Your task to perform on an android device: Add "logitech g910" to the cart on ebay, then select checkout. Image 0: 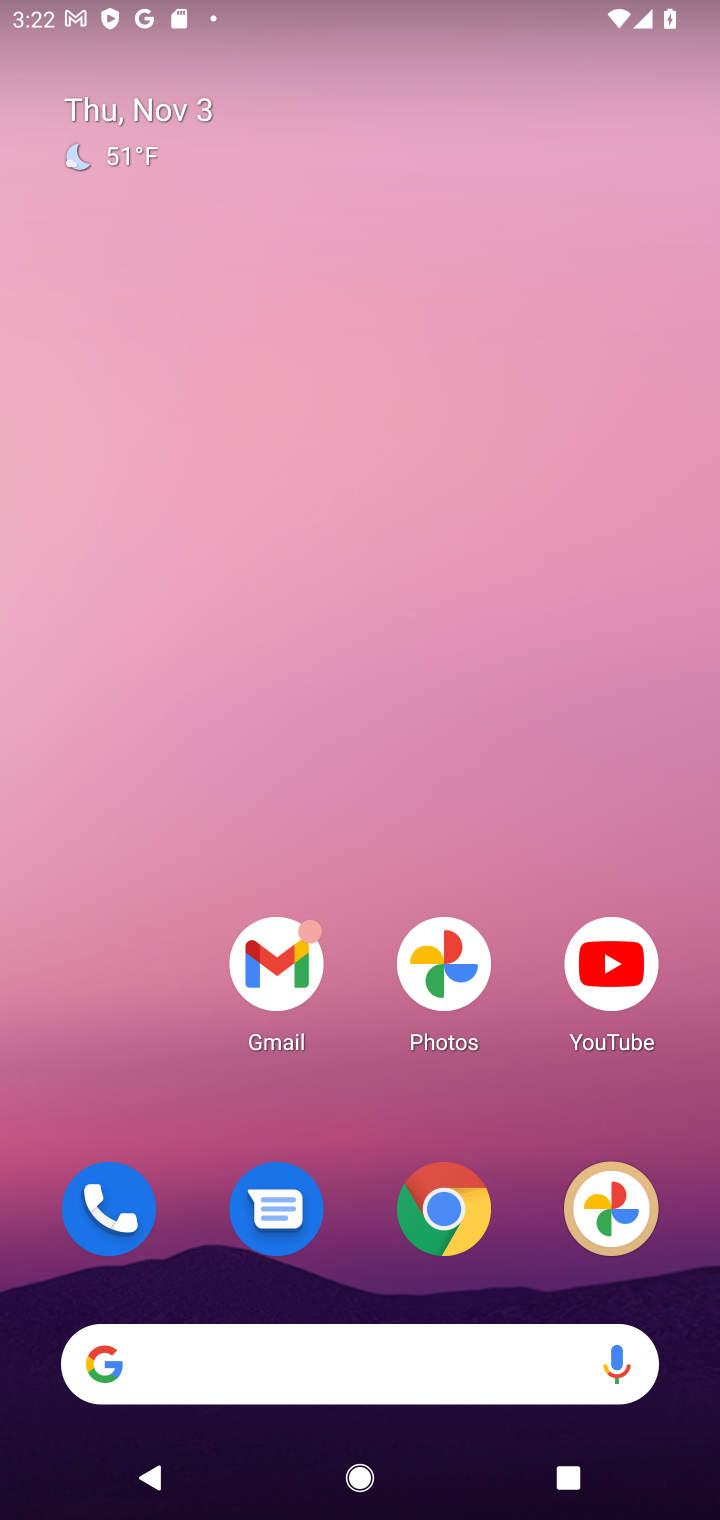
Step 0: click (469, 1209)
Your task to perform on an android device: Add "logitech g910" to the cart on ebay, then select checkout. Image 1: 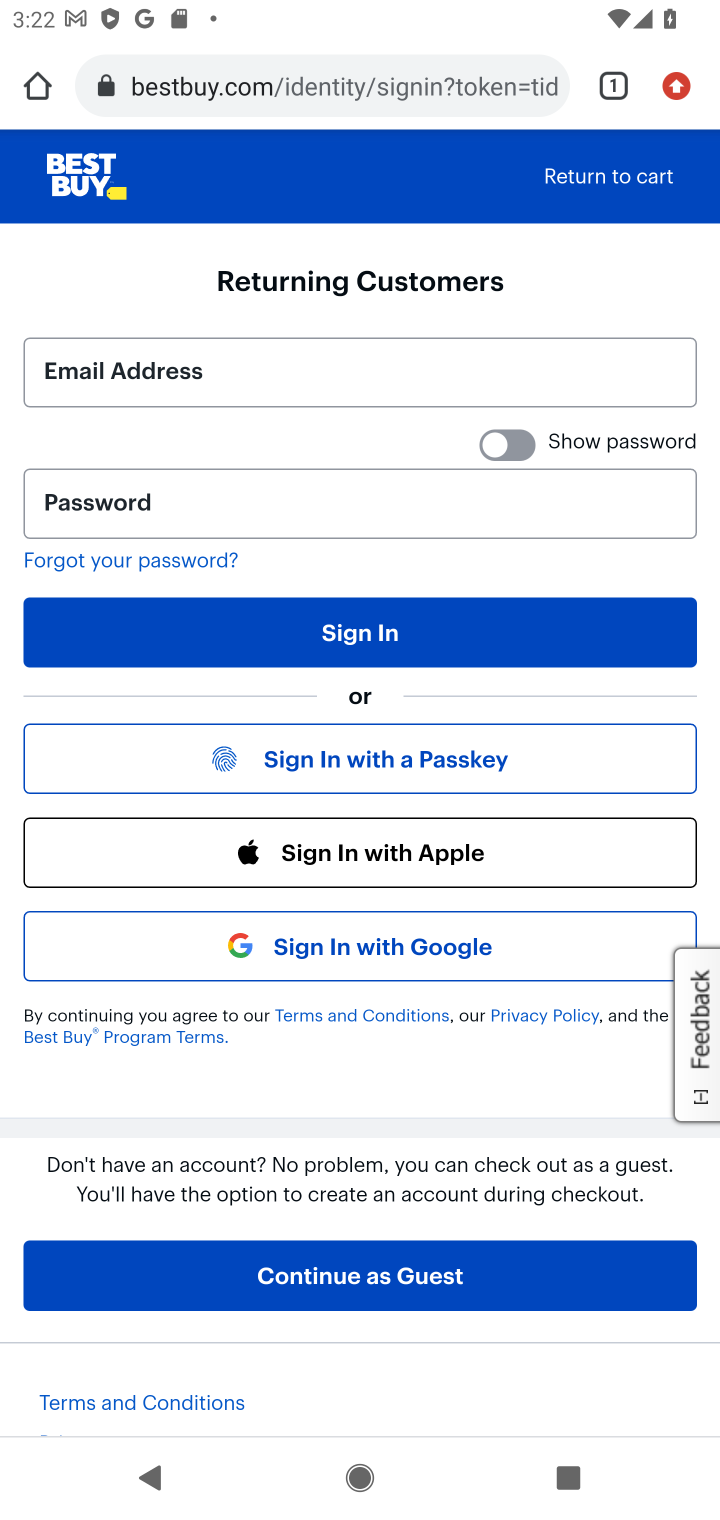
Step 1: click (331, 97)
Your task to perform on an android device: Add "logitech g910" to the cart on ebay, then select checkout. Image 2: 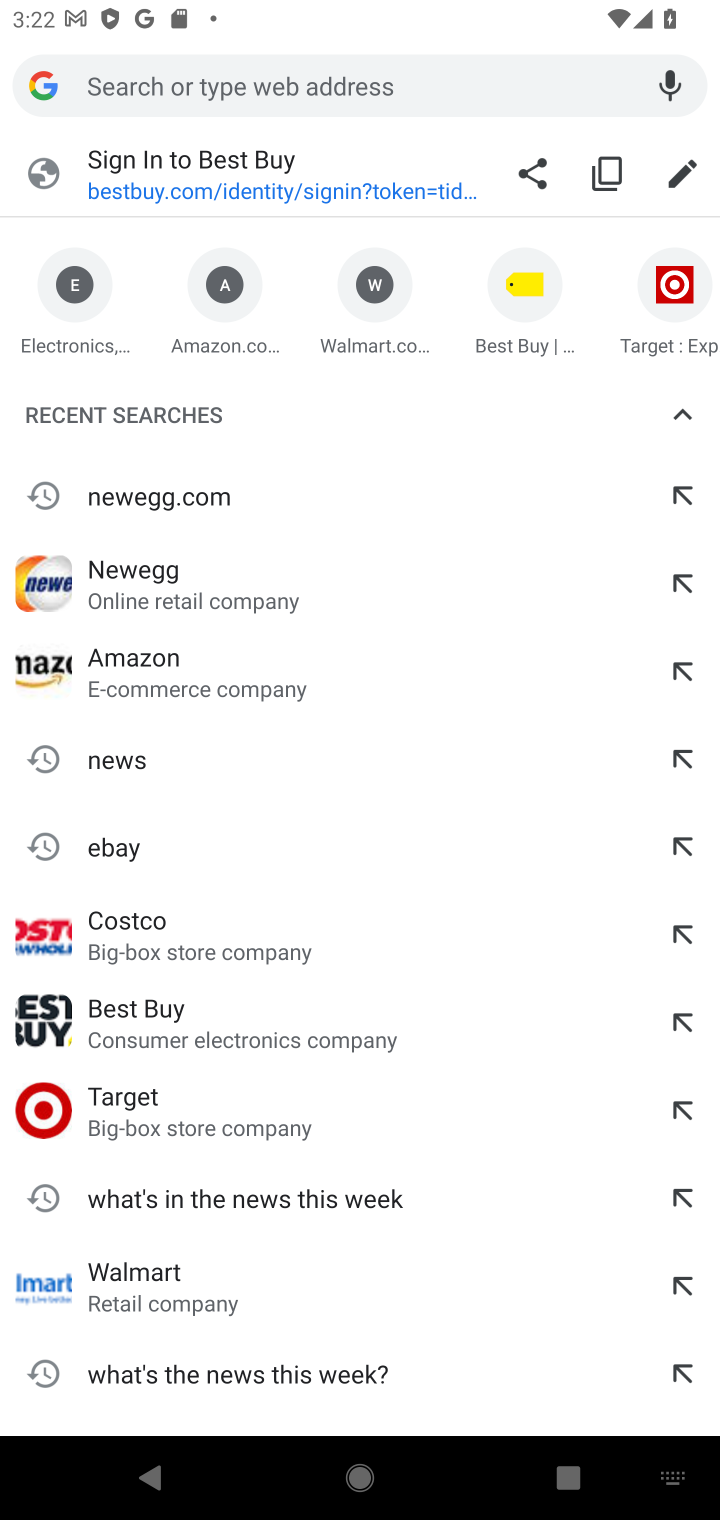
Step 2: type "ebay"
Your task to perform on an android device: Add "logitech g910" to the cart on ebay, then select checkout. Image 3: 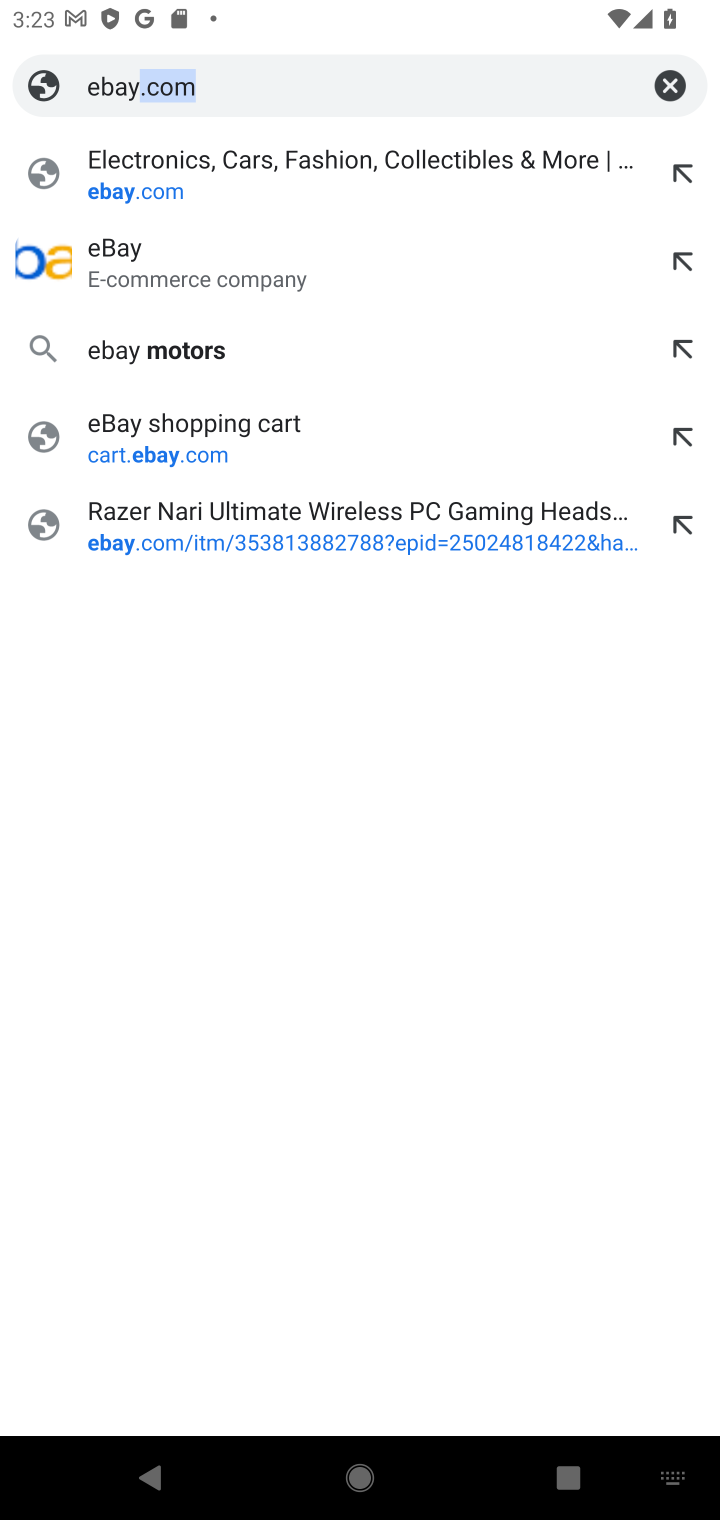
Step 3: click (292, 160)
Your task to perform on an android device: Add "logitech g910" to the cart on ebay, then select checkout. Image 4: 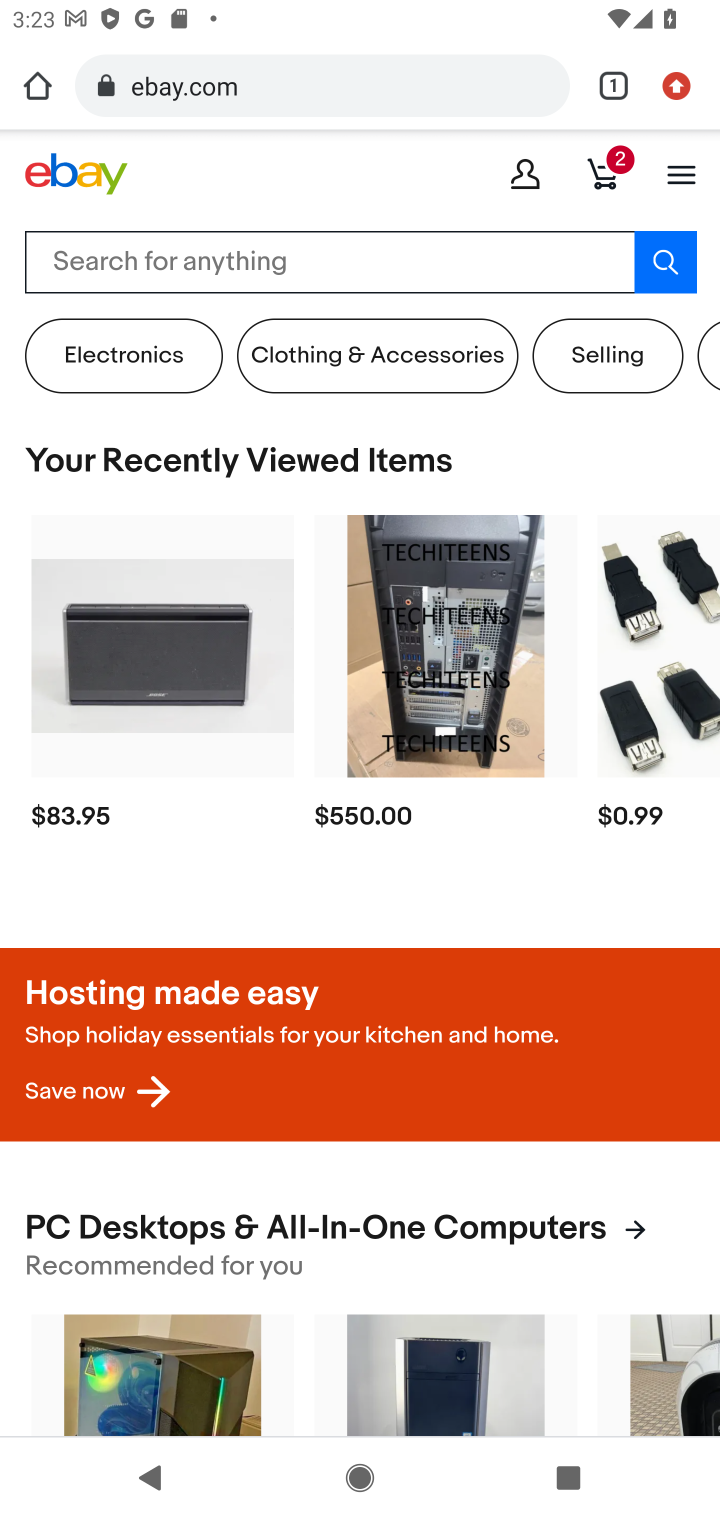
Step 4: click (309, 274)
Your task to perform on an android device: Add "logitech g910" to the cart on ebay, then select checkout. Image 5: 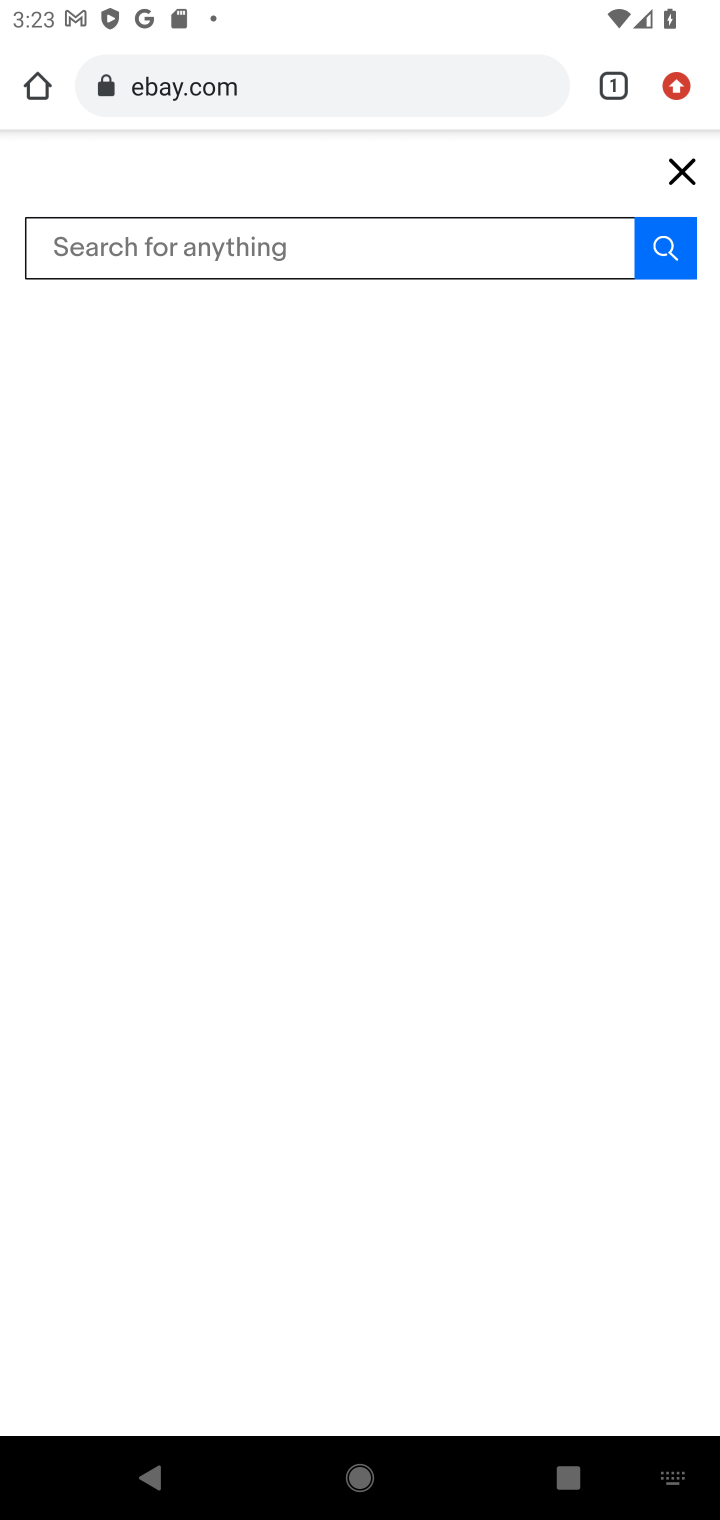
Step 5: type "logitech g910"
Your task to perform on an android device: Add "logitech g910" to the cart on ebay, then select checkout. Image 6: 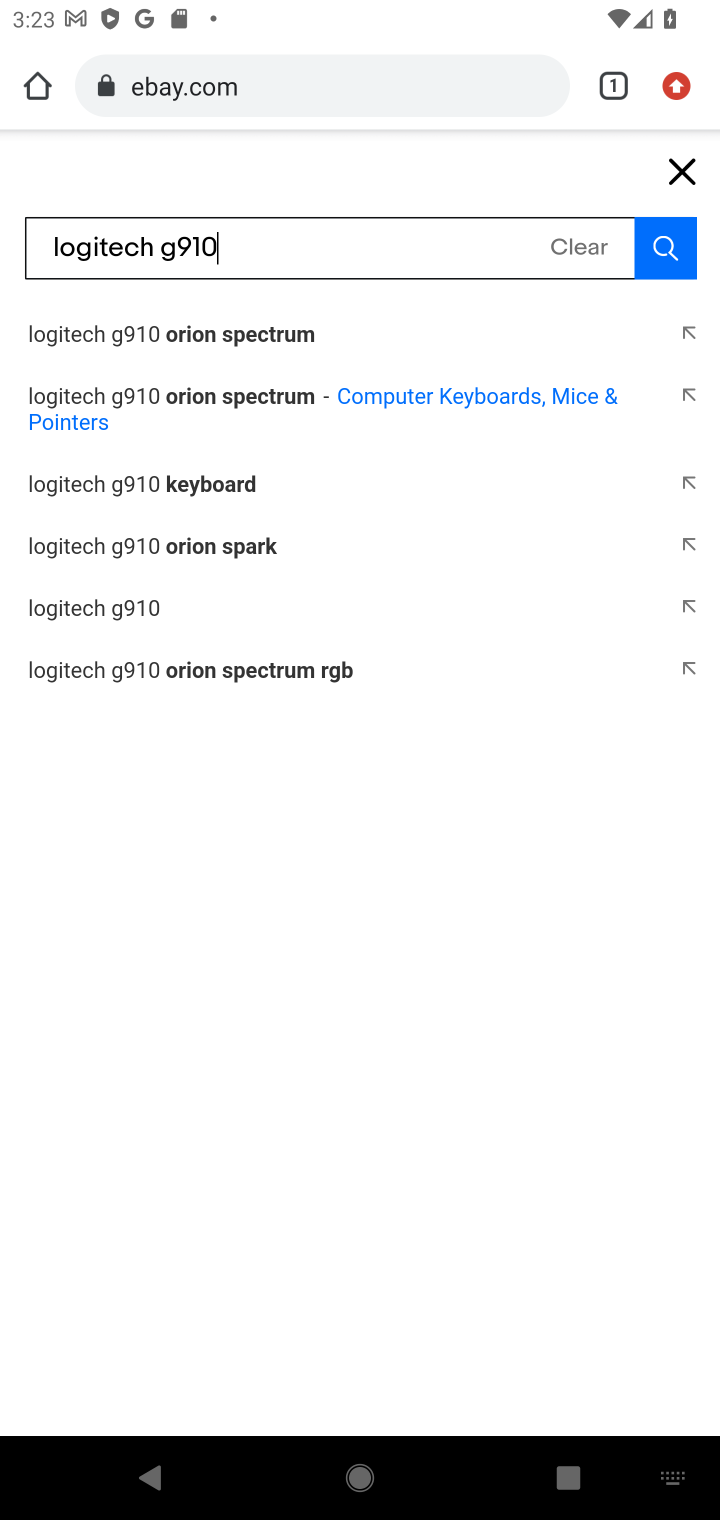
Step 6: press enter
Your task to perform on an android device: Add "logitech g910" to the cart on ebay, then select checkout. Image 7: 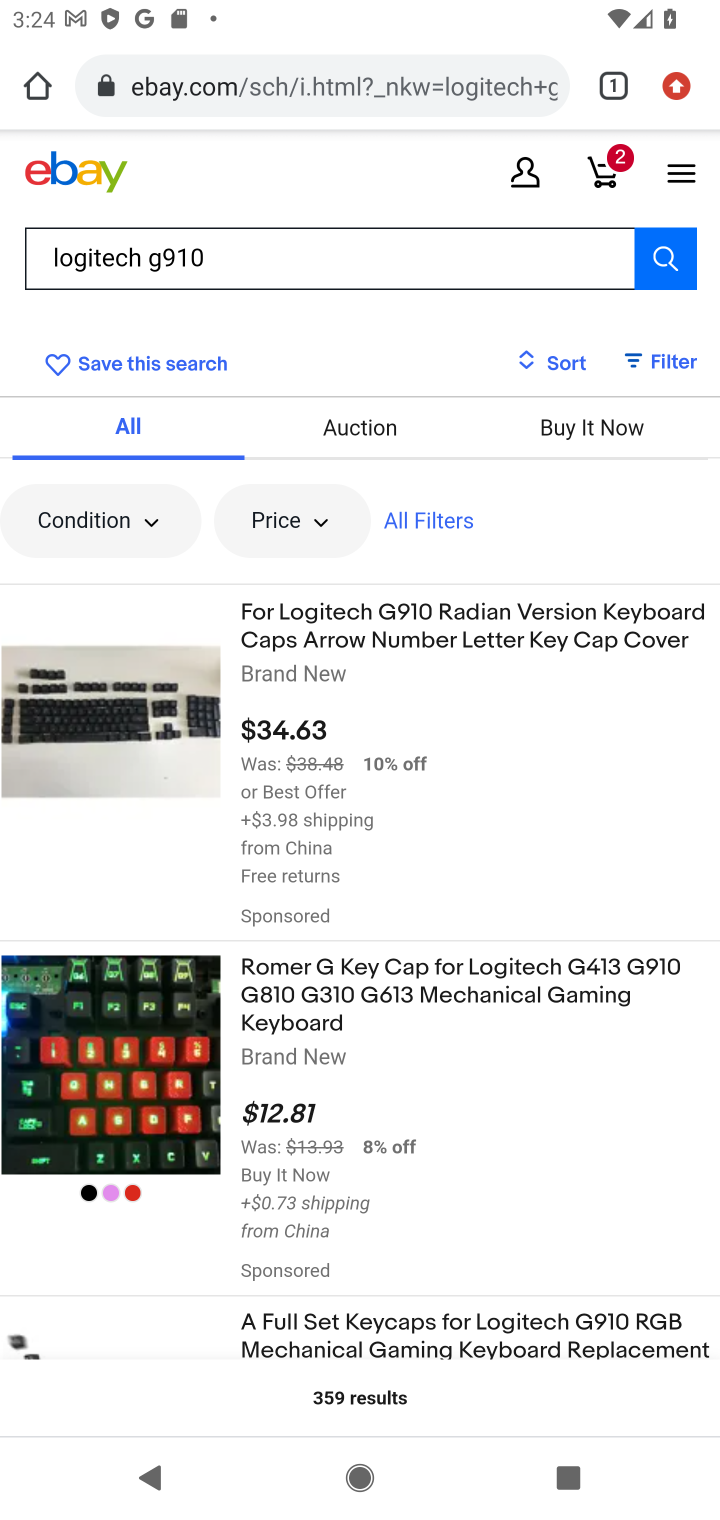
Step 7: click (71, 731)
Your task to perform on an android device: Add "logitech g910" to the cart on ebay, then select checkout. Image 8: 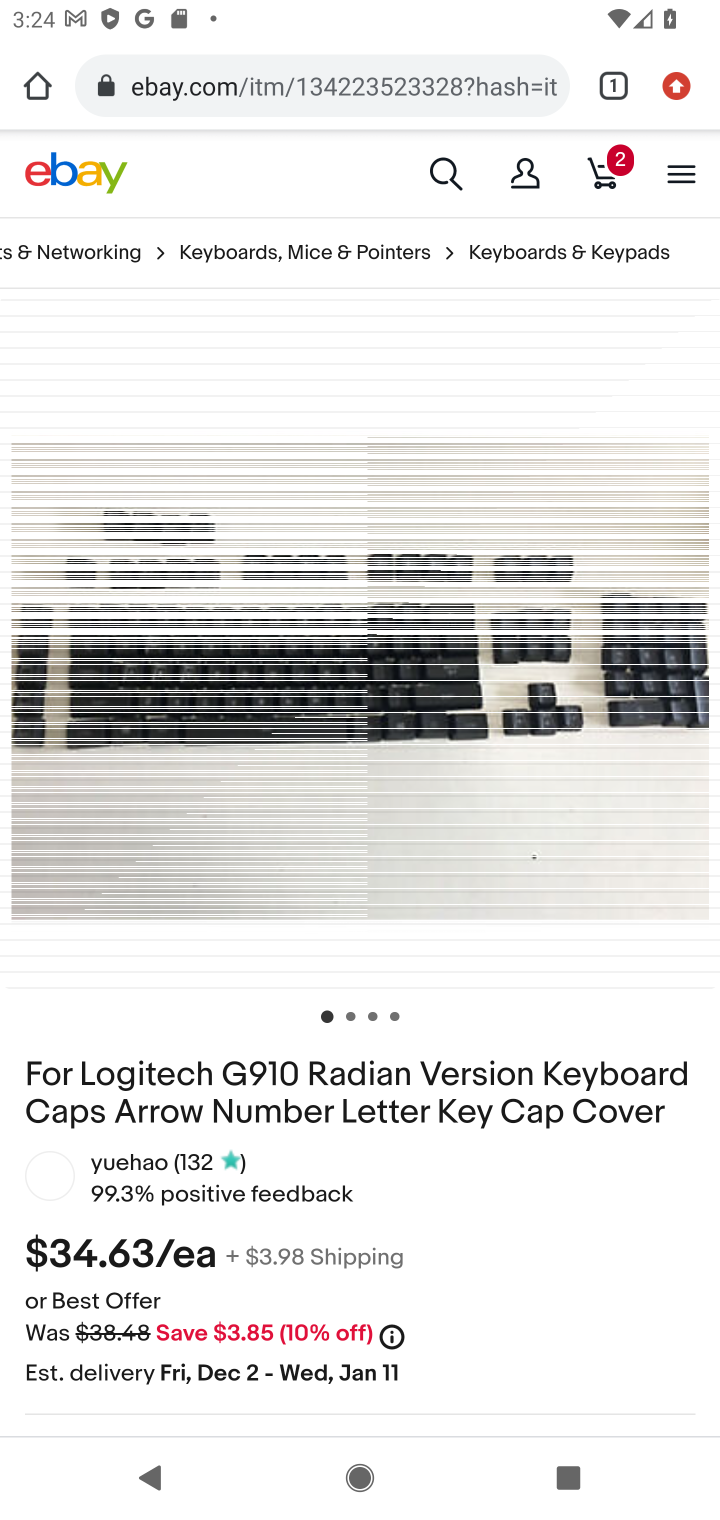
Step 8: click (441, 175)
Your task to perform on an android device: Add "logitech g910" to the cart on ebay, then select checkout. Image 9: 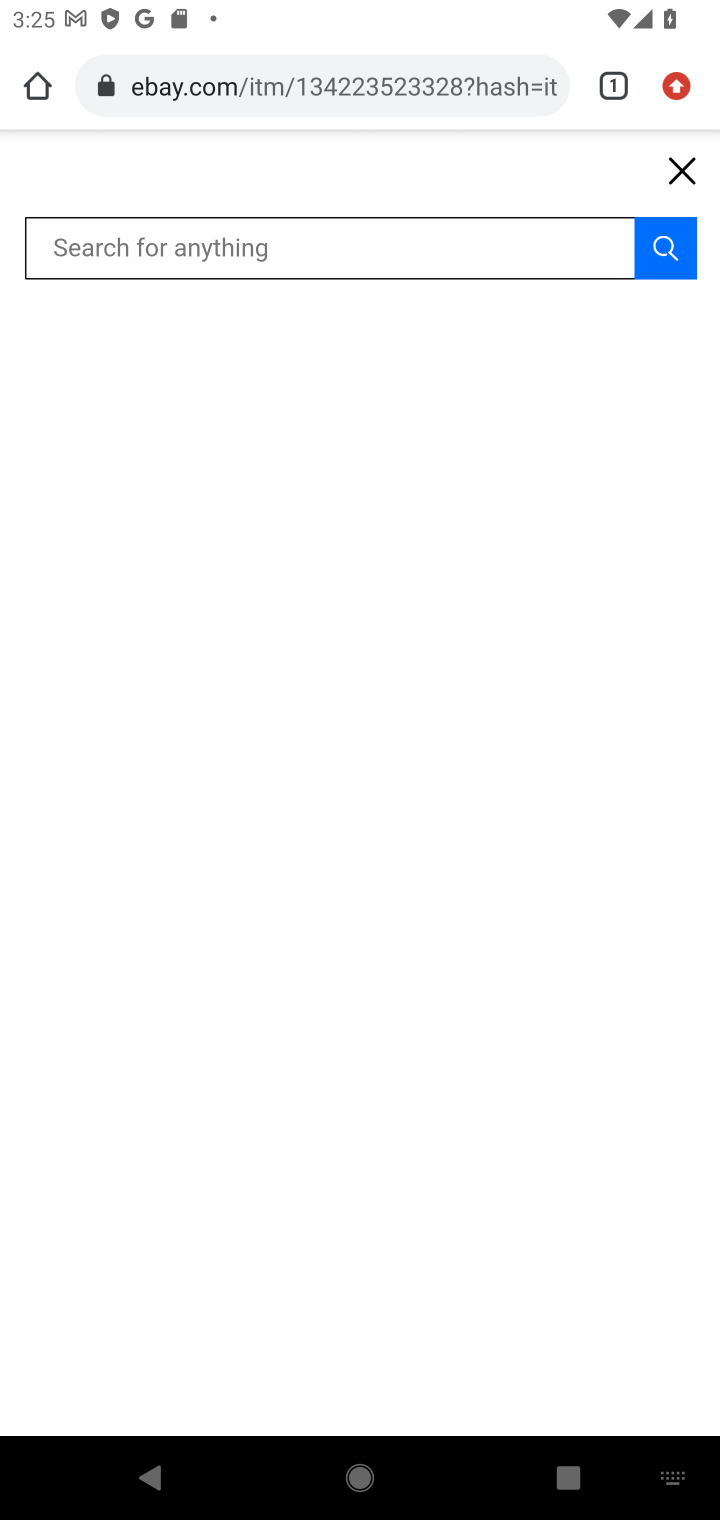
Step 9: type "logitech g910"
Your task to perform on an android device: Add "logitech g910" to the cart on ebay, then select checkout. Image 10: 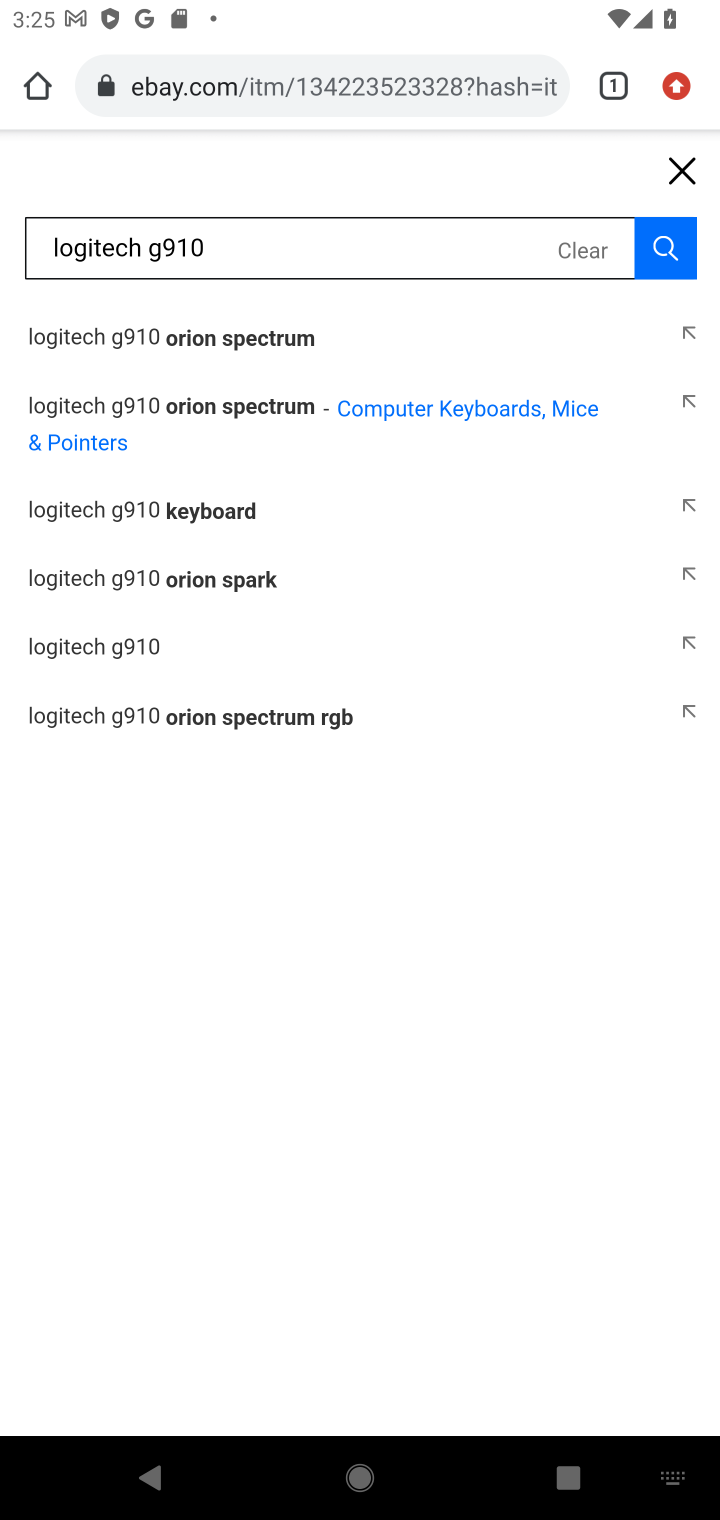
Step 10: press enter
Your task to perform on an android device: Add "logitech g910" to the cart on ebay, then select checkout. Image 11: 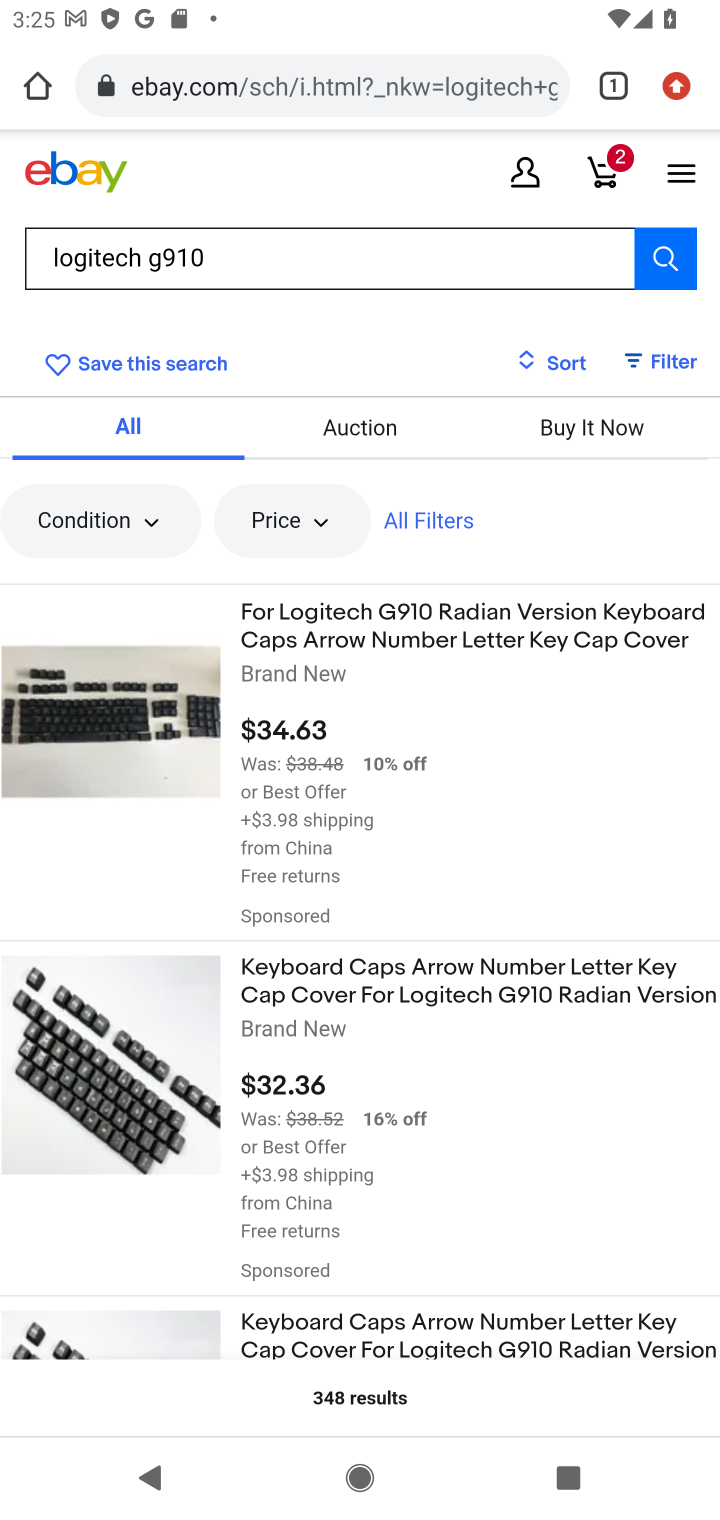
Step 11: click (166, 719)
Your task to perform on an android device: Add "logitech g910" to the cart on ebay, then select checkout. Image 12: 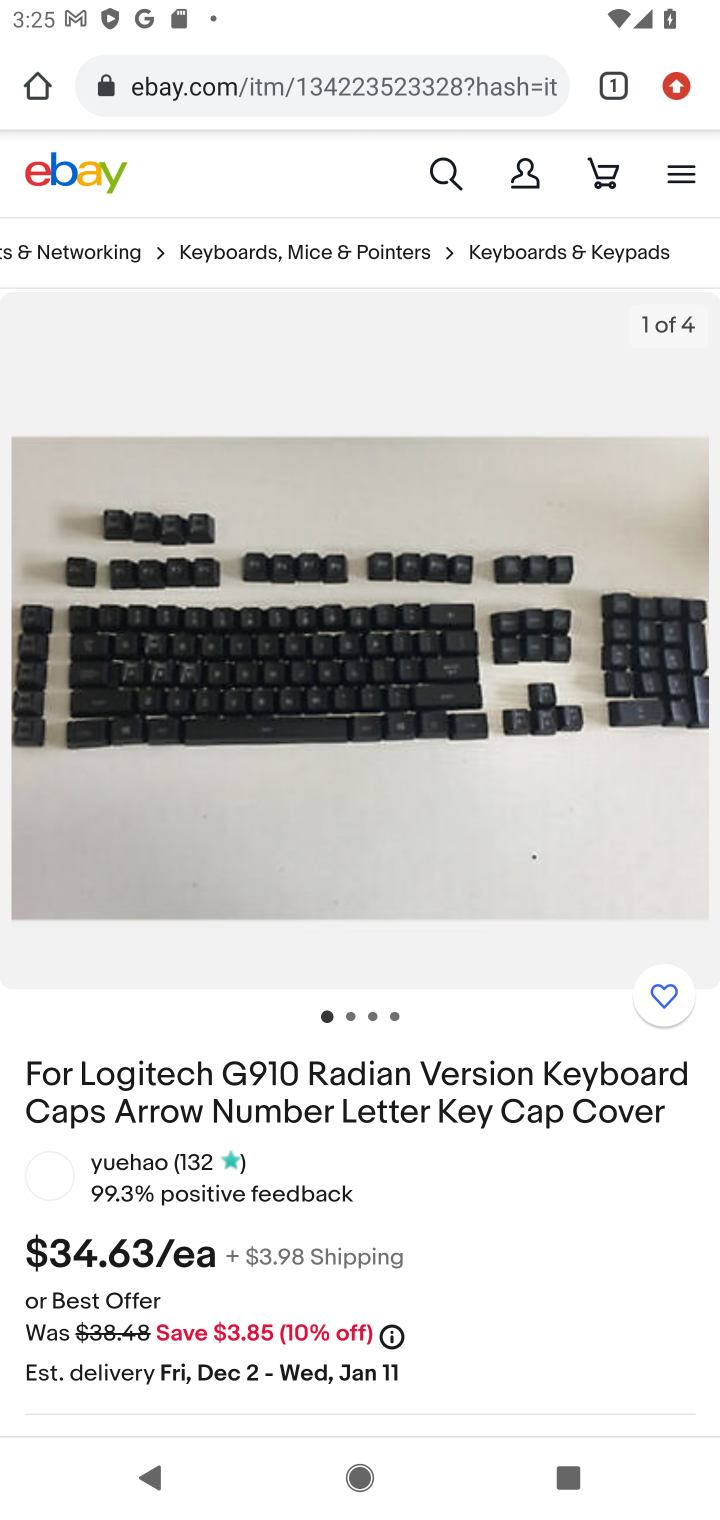
Step 12: drag from (473, 1030) to (482, 261)
Your task to perform on an android device: Add "logitech g910" to the cart on ebay, then select checkout. Image 13: 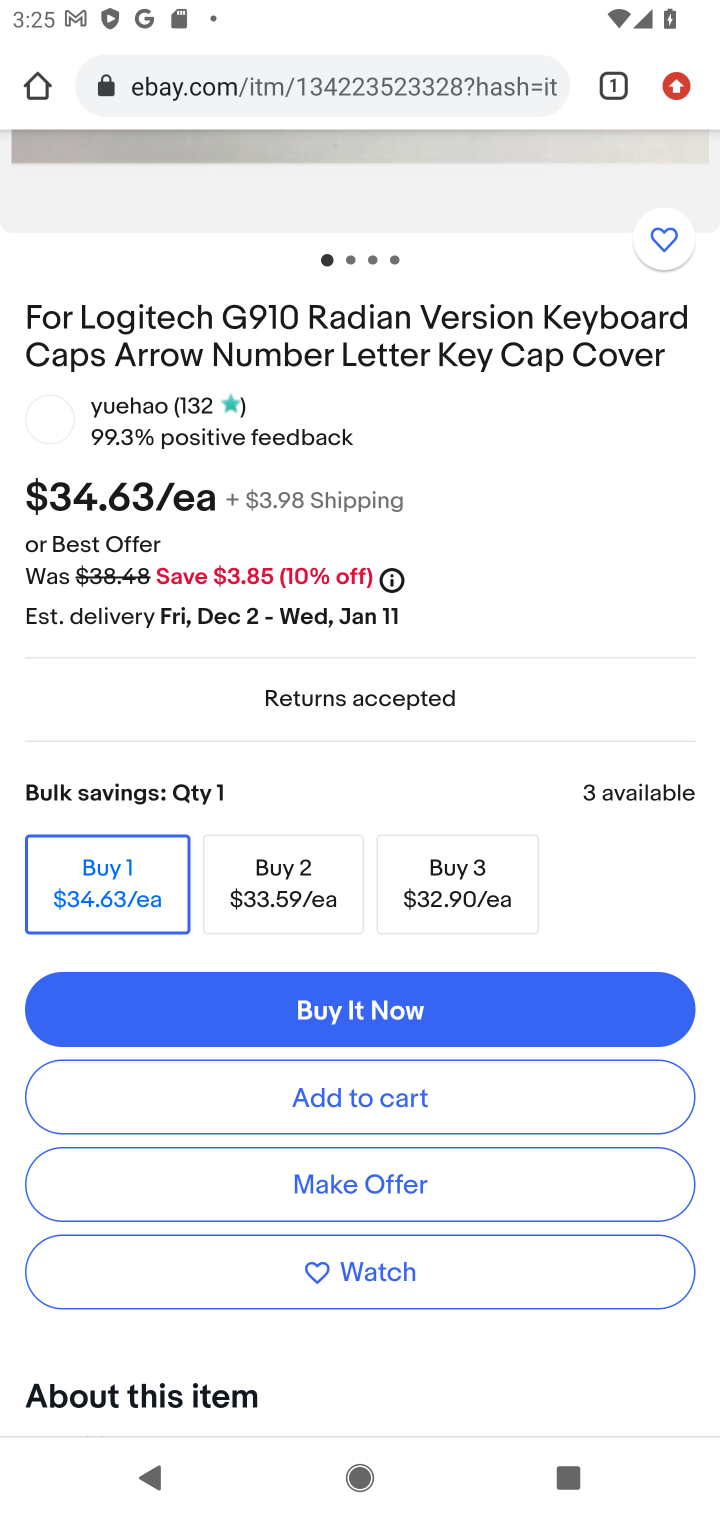
Step 13: click (585, 1099)
Your task to perform on an android device: Add "logitech g910" to the cart on ebay, then select checkout. Image 14: 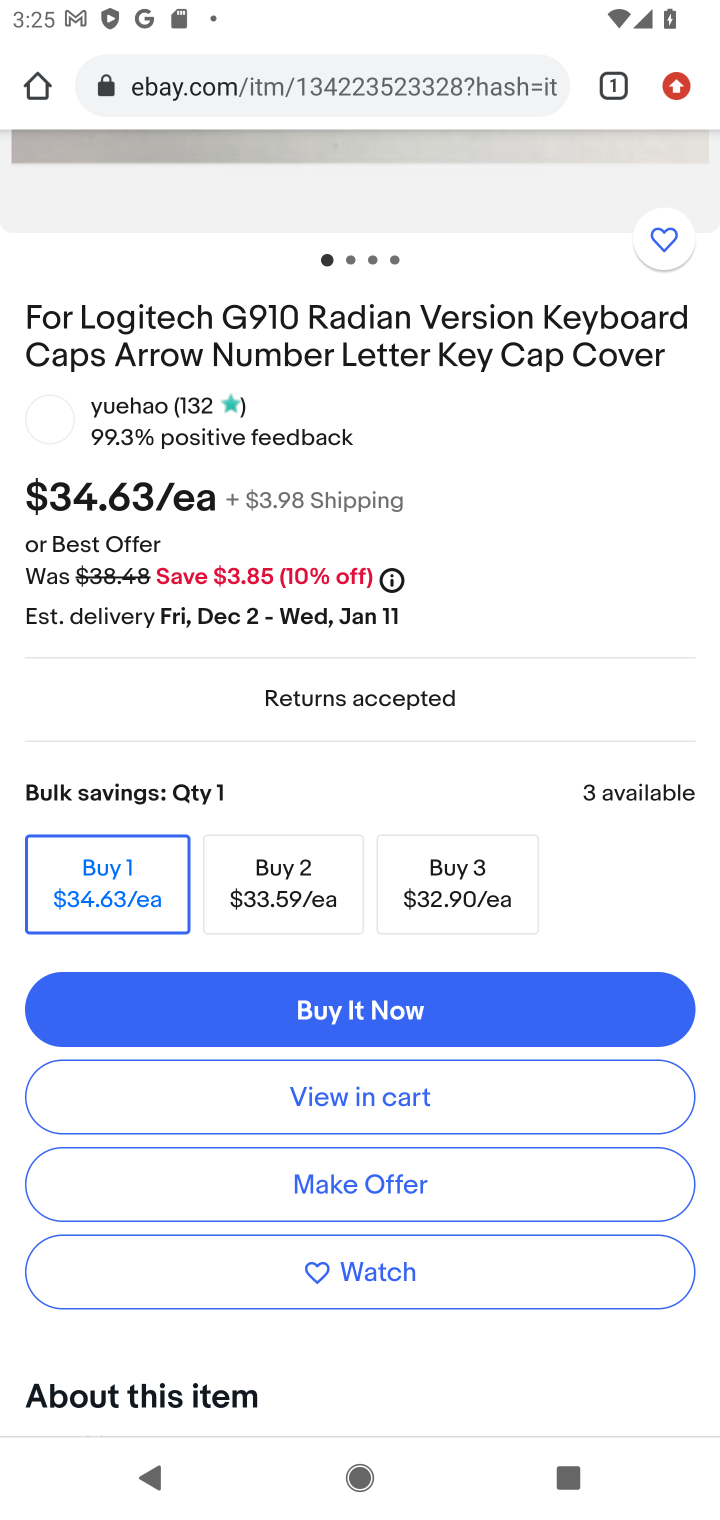
Step 14: drag from (579, 342) to (590, 1150)
Your task to perform on an android device: Add "logitech g910" to the cart on ebay, then select checkout. Image 15: 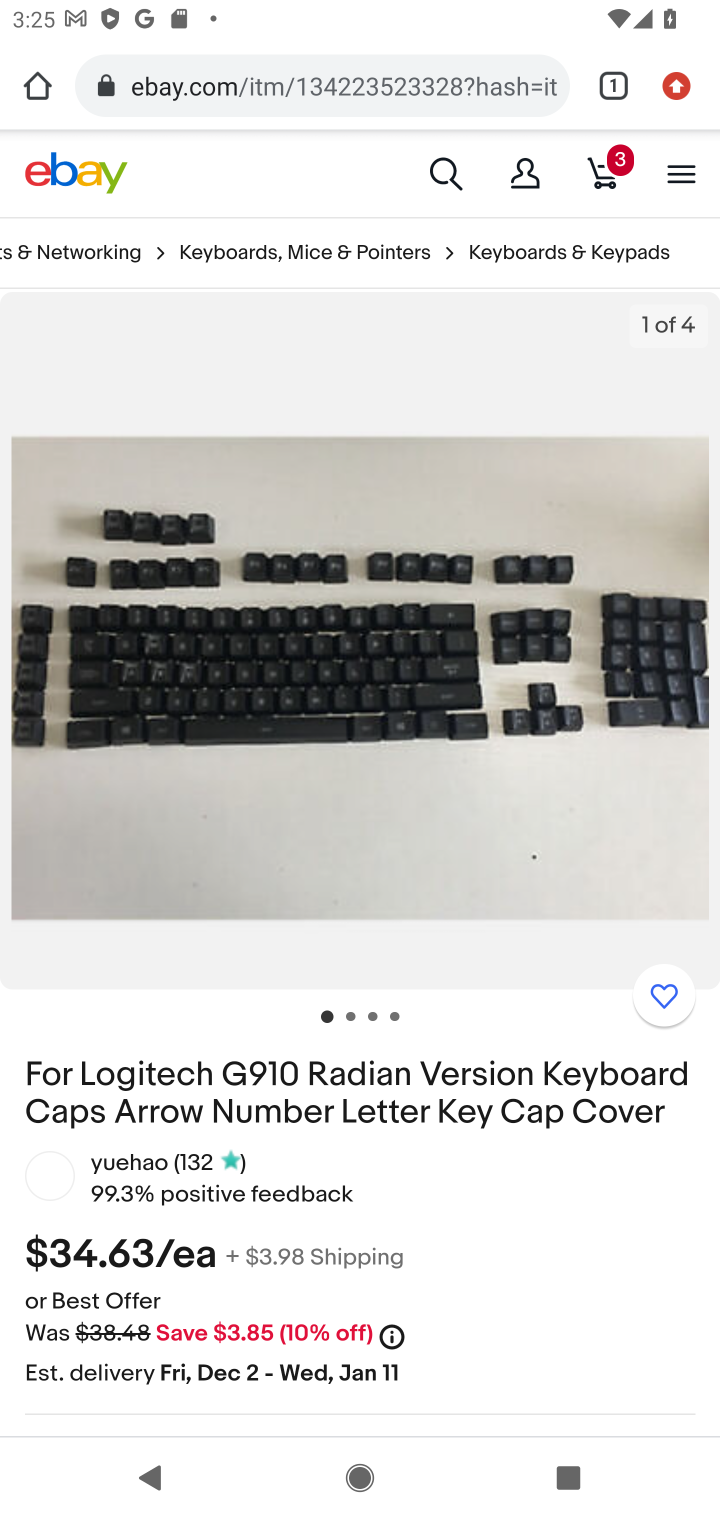
Step 15: click (621, 174)
Your task to perform on an android device: Add "logitech g910" to the cart on ebay, then select checkout. Image 16: 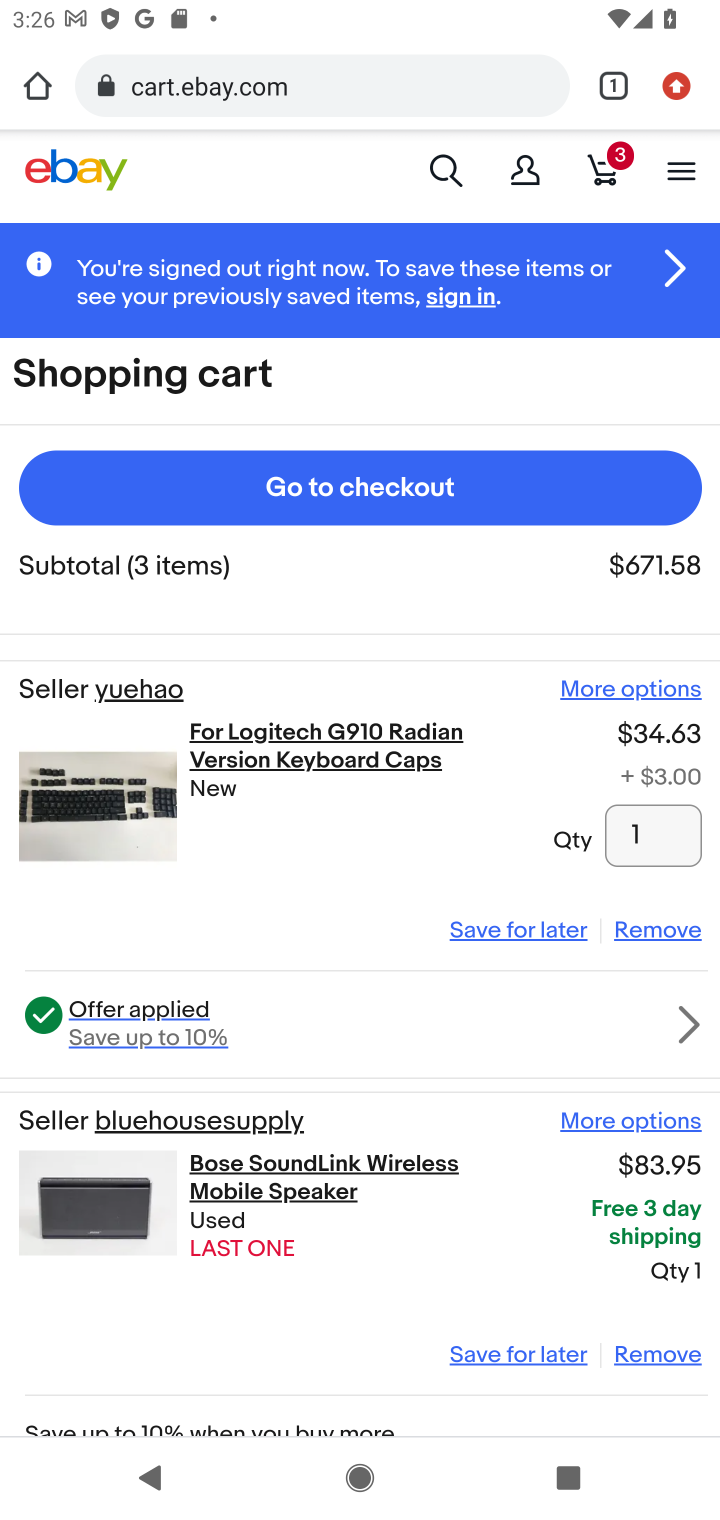
Step 16: click (407, 498)
Your task to perform on an android device: Add "logitech g910" to the cart on ebay, then select checkout. Image 17: 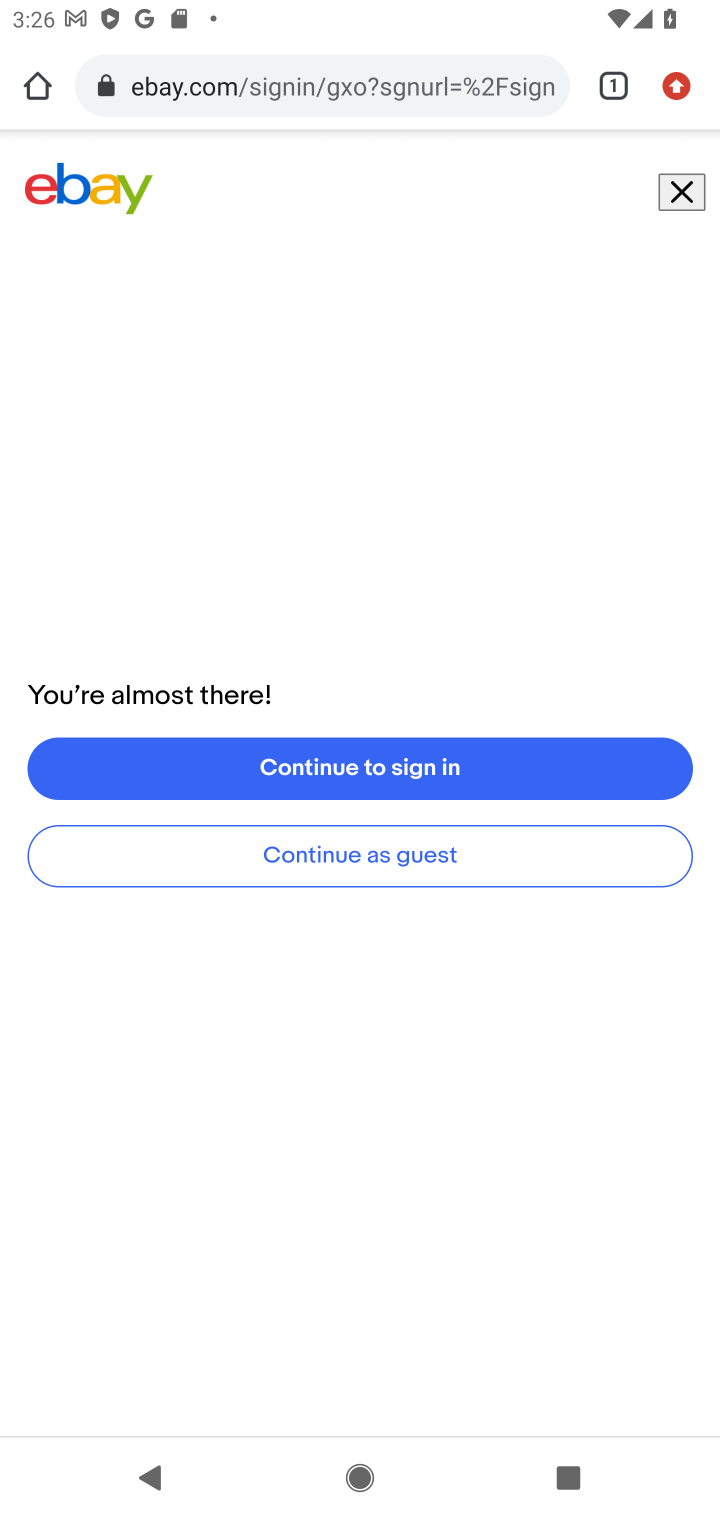
Step 17: task complete